Your task to perform on an android device: Go to Wikipedia Image 0: 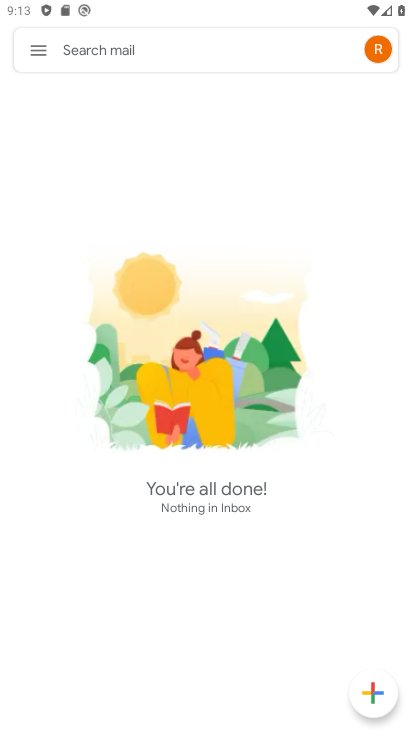
Step 0: drag from (205, 667) to (200, 426)
Your task to perform on an android device: Go to Wikipedia Image 1: 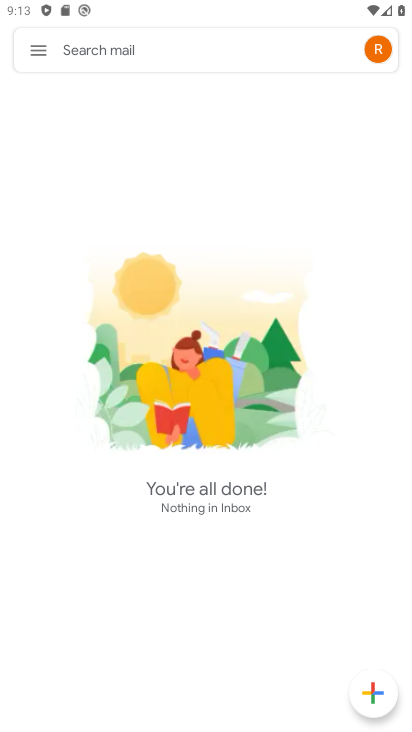
Step 1: press home button
Your task to perform on an android device: Go to Wikipedia Image 2: 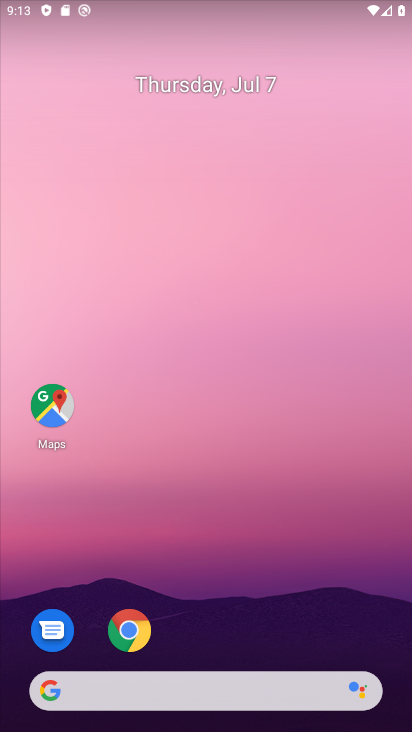
Step 2: click (152, 385)
Your task to perform on an android device: Go to Wikipedia Image 3: 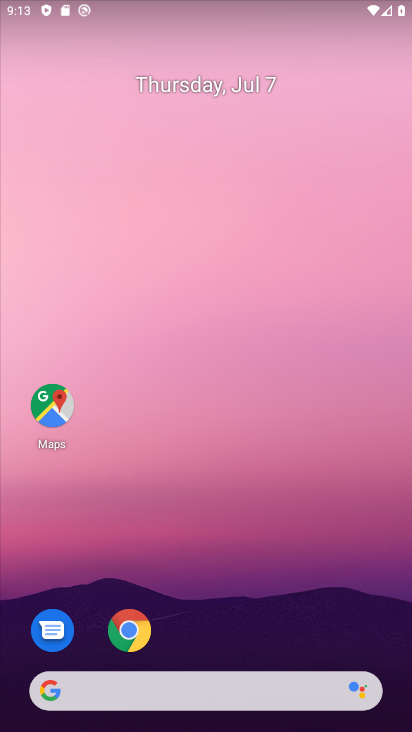
Step 3: drag from (204, 673) to (174, 332)
Your task to perform on an android device: Go to Wikipedia Image 4: 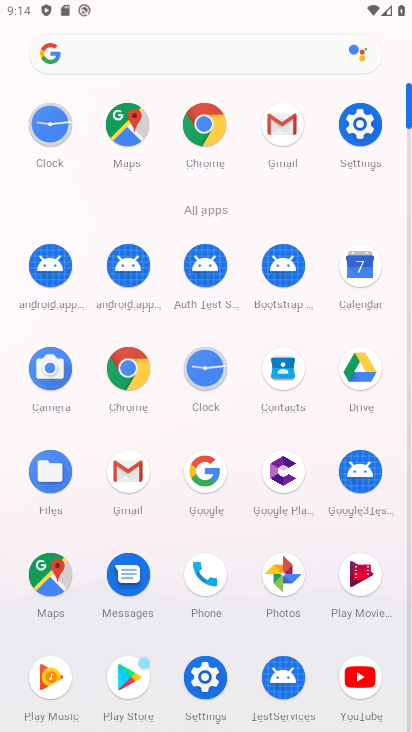
Step 4: click (213, 122)
Your task to perform on an android device: Go to Wikipedia Image 5: 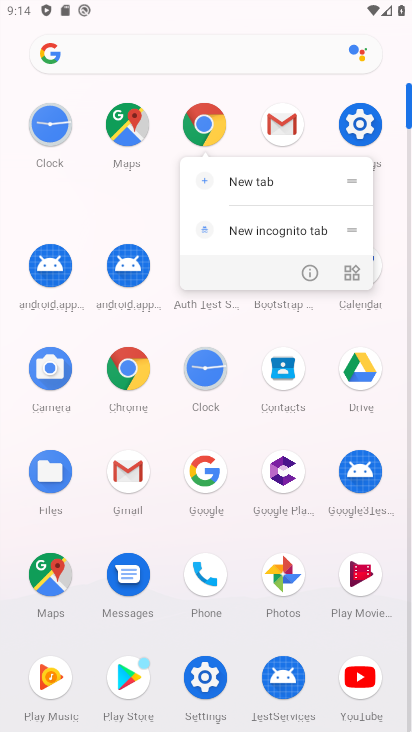
Step 5: click (213, 122)
Your task to perform on an android device: Go to Wikipedia Image 6: 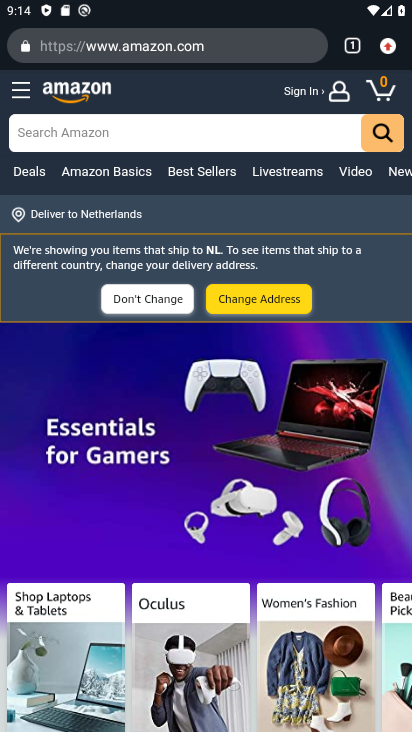
Step 6: click (354, 47)
Your task to perform on an android device: Go to Wikipedia Image 7: 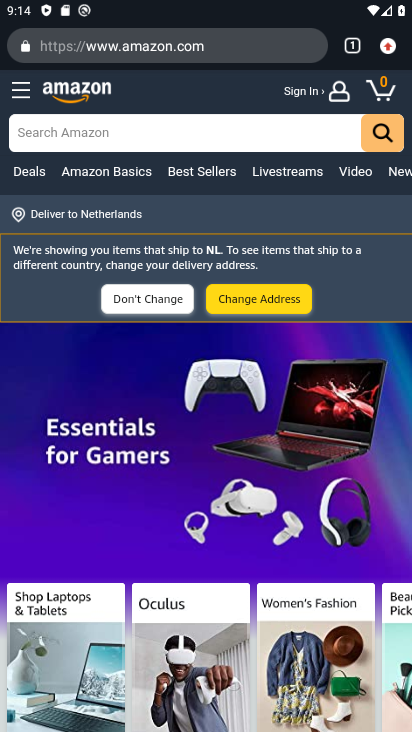
Step 7: click (351, 50)
Your task to perform on an android device: Go to Wikipedia Image 8: 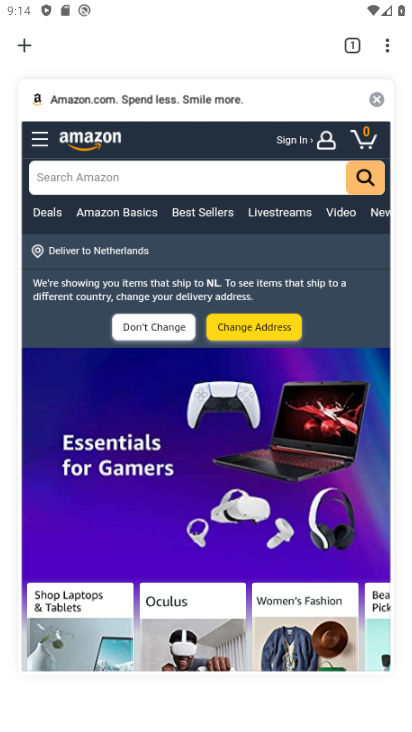
Step 8: click (26, 44)
Your task to perform on an android device: Go to Wikipedia Image 9: 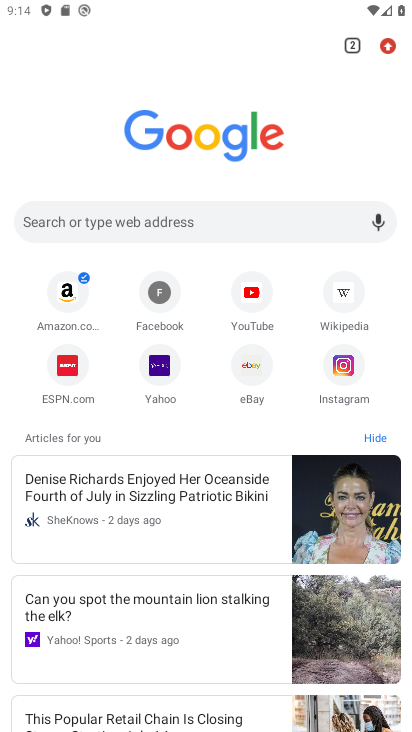
Step 9: click (351, 295)
Your task to perform on an android device: Go to Wikipedia Image 10: 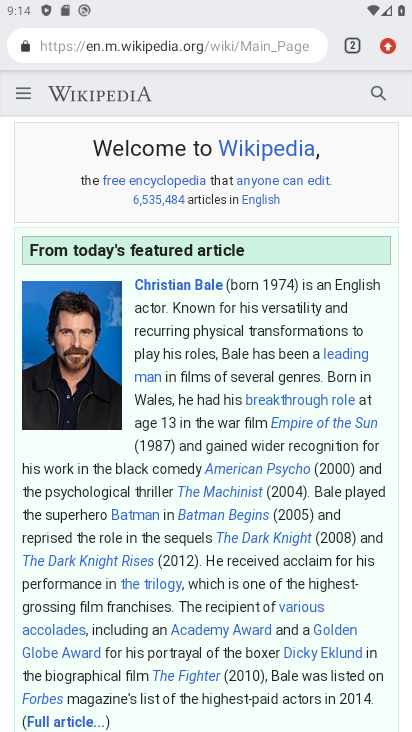
Step 10: task complete